Your task to perform on an android device: What's the weather going to be this weekend? Image 0: 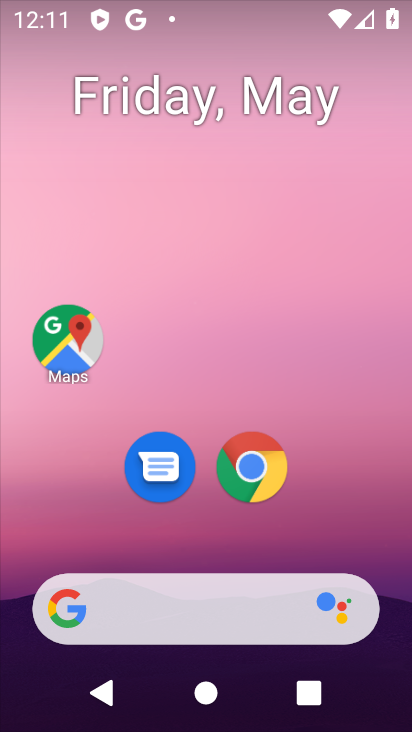
Step 0: drag from (330, 510) to (264, 27)
Your task to perform on an android device: What's the weather going to be this weekend? Image 1: 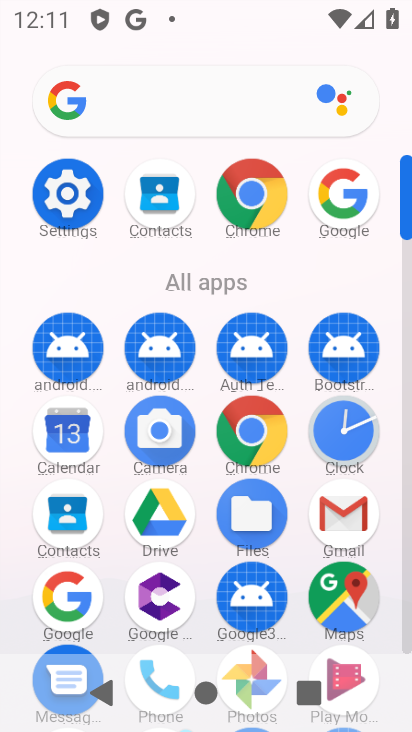
Step 1: click (60, 597)
Your task to perform on an android device: What's the weather going to be this weekend? Image 2: 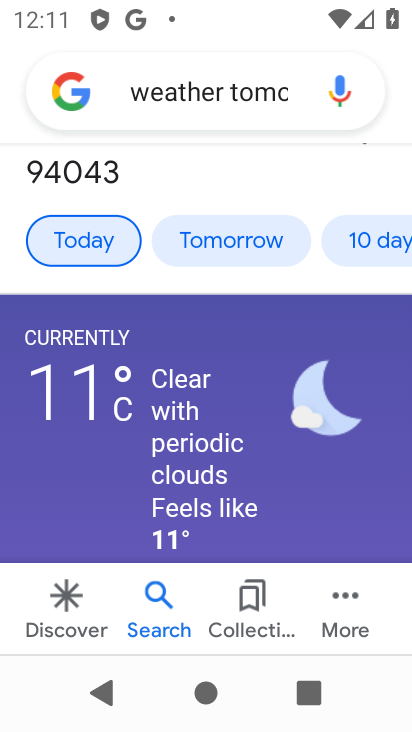
Step 2: drag from (290, 254) to (124, 261)
Your task to perform on an android device: What's the weather going to be this weekend? Image 3: 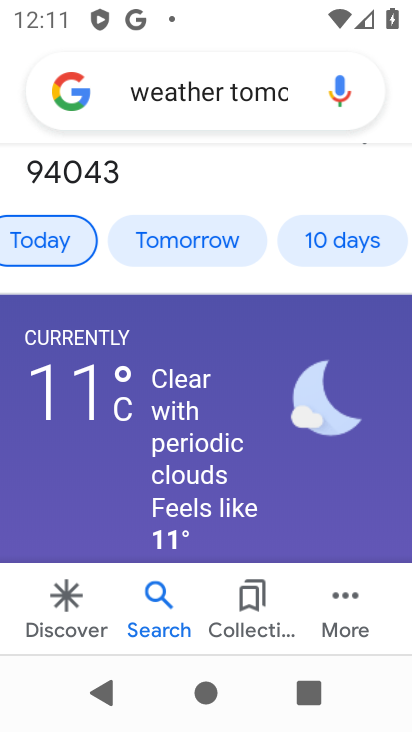
Step 3: click (346, 241)
Your task to perform on an android device: What's the weather going to be this weekend? Image 4: 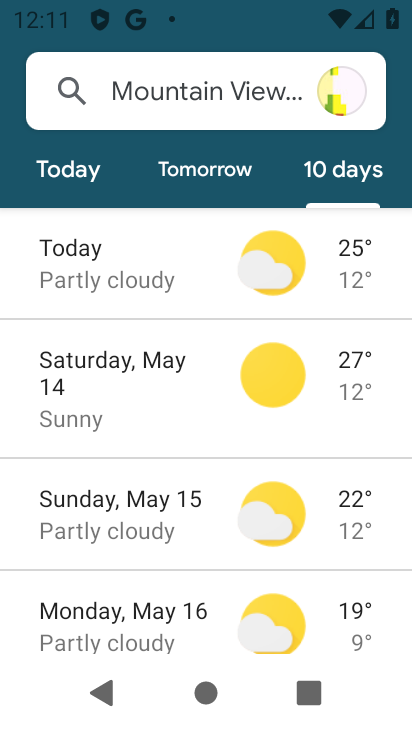
Step 4: task complete